Your task to perform on an android device: turn notification dots on Image 0: 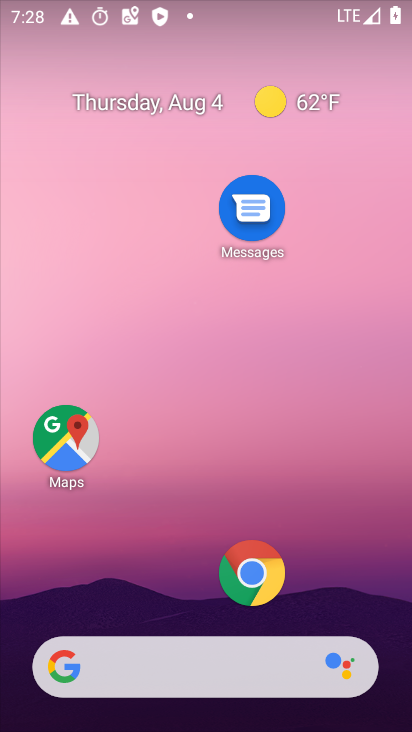
Step 0: press home button
Your task to perform on an android device: turn notification dots on Image 1: 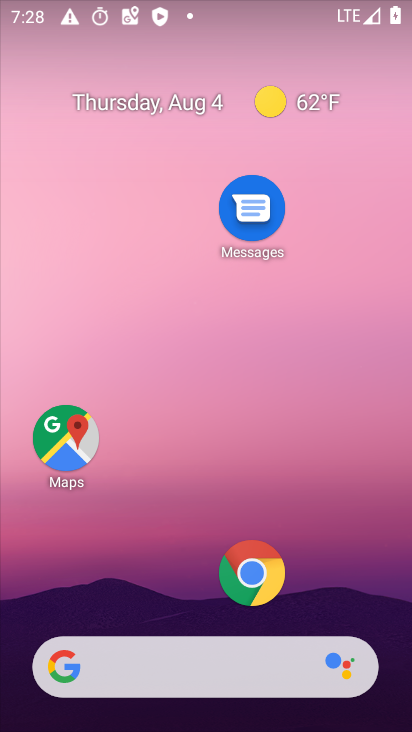
Step 1: drag from (198, 607) to (179, 9)
Your task to perform on an android device: turn notification dots on Image 2: 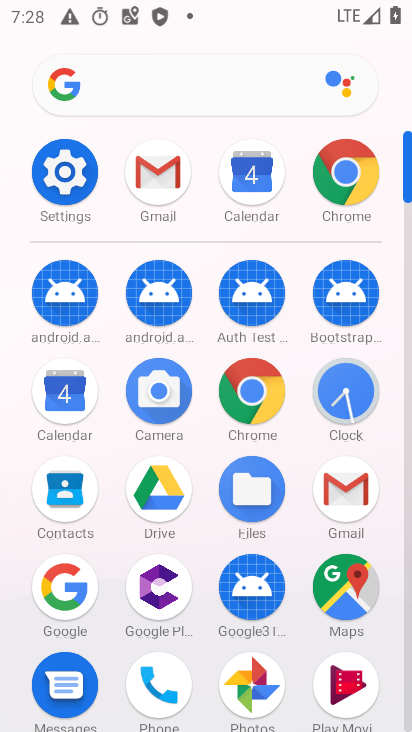
Step 2: click (57, 152)
Your task to perform on an android device: turn notification dots on Image 3: 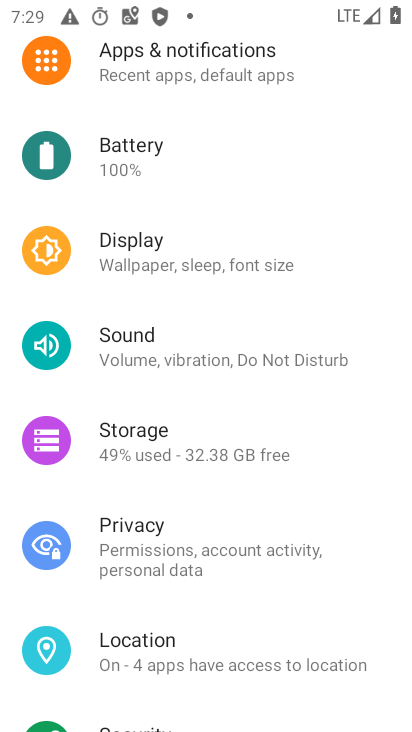
Step 3: click (230, 65)
Your task to perform on an android device: turn notification dots on Image 4: 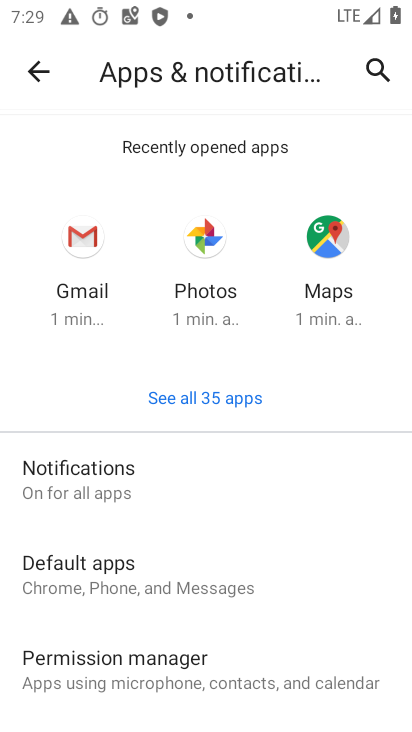
Step 4: click (60, 467)
Your task to perform on an android device: turn notification dots on Image 5: 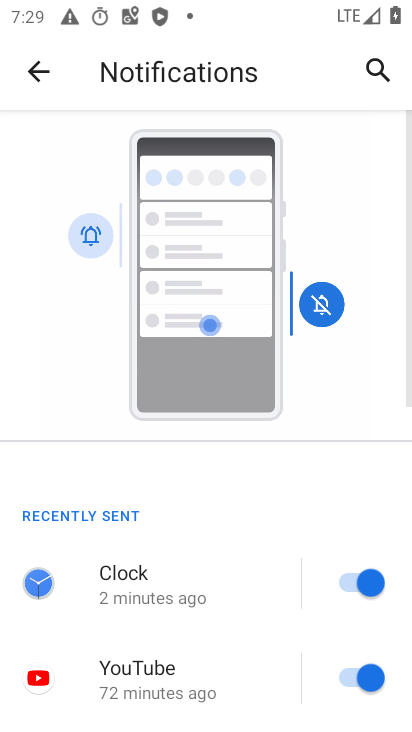
Step 5: drag from (259, 617) to (304, 113)
Your task to perform on an android device: turn notification dots on Image 6: 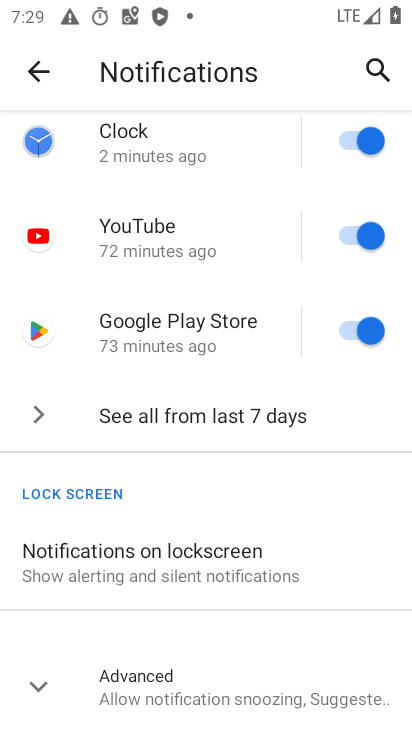
Step 6: click (136, 707)
Your task to perform on an android device: turn notification dots on Image 7: 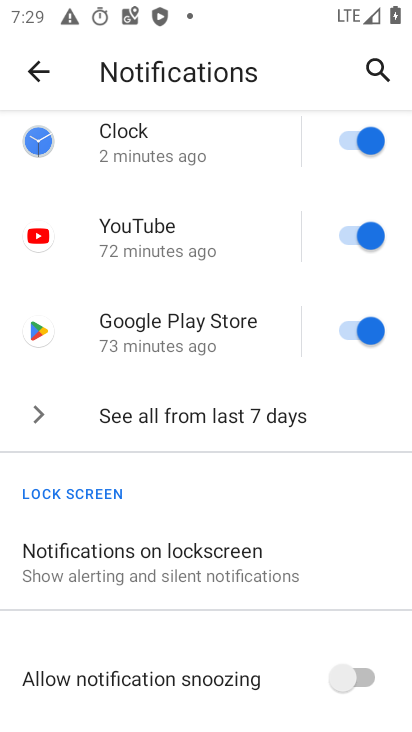
Step 7: drag from (260, 628) to (266, 305)
Your task to perform on an android device: turn notification dots on Image 8: 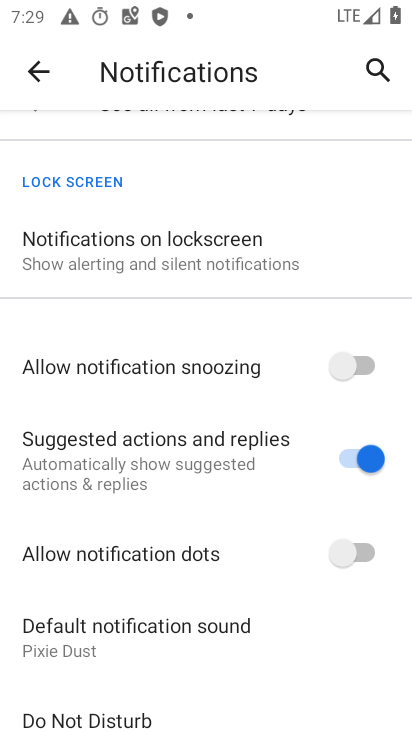
Step 8: click (348, 549)
Your task to perform on an android device: turn notification dots on Image 9: 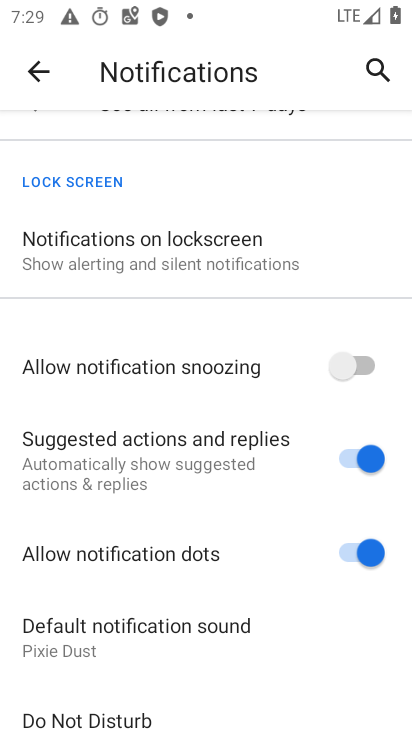
Step 9: task complete